Your task to perform on an android device: create a new album in the google photos Image 0: 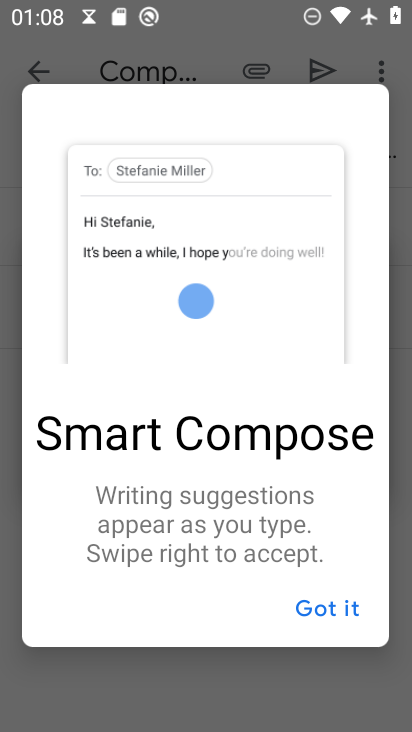
Step 0: press home button
Your task to perform on an android device: create a new album in the google photos Image 1: 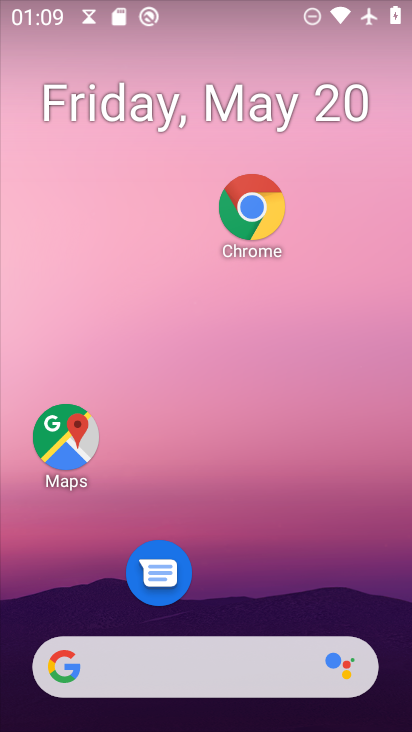
Step 1: drag from (280, 579) to (289, 0)
Your task to perform on an android device: create a new album in the google photos Image 2: 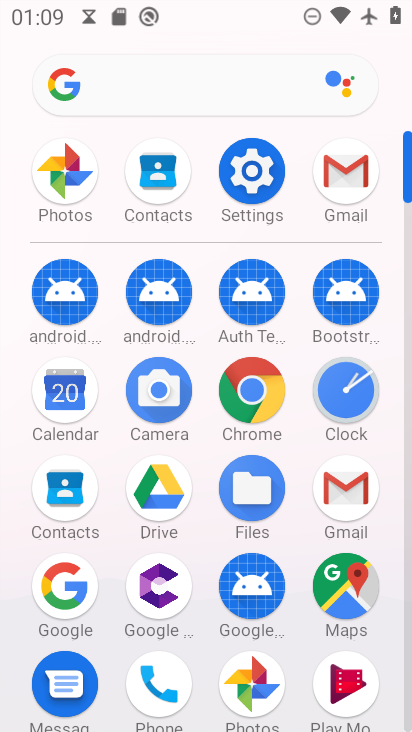
Step 2: click (74, 188)
Your task to perform on an android device: create a new album in the google photos Image 3: 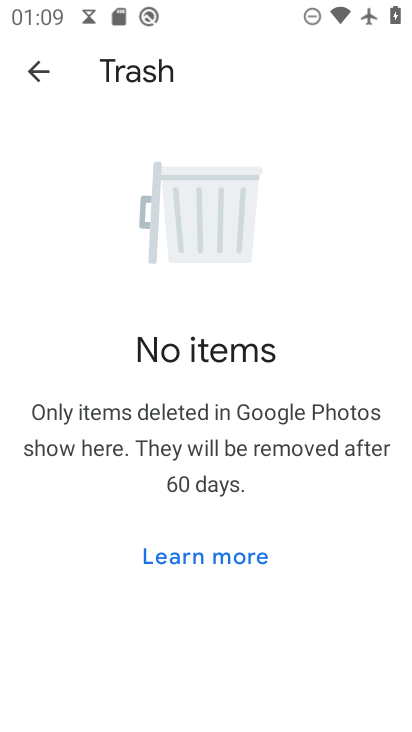
Step 3: click (42, 85)
Your task to perform on an android device: create a new album in the google photos Image 4: 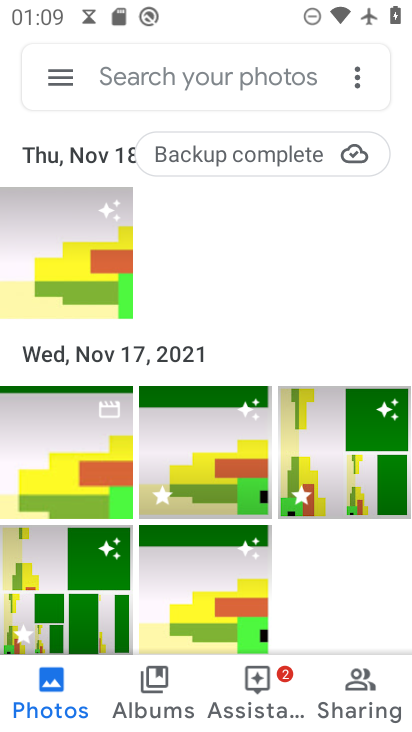
Step 4: click (171, 673)
Your task to perform on an android device: create a new album in the google photos Image 5: 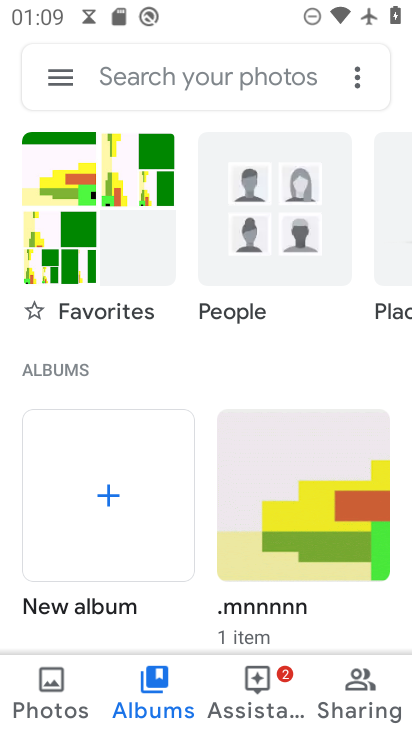
Step 5: click (89, 485)
Your task to perform on an android device: create a new album in the google photos Image 6: 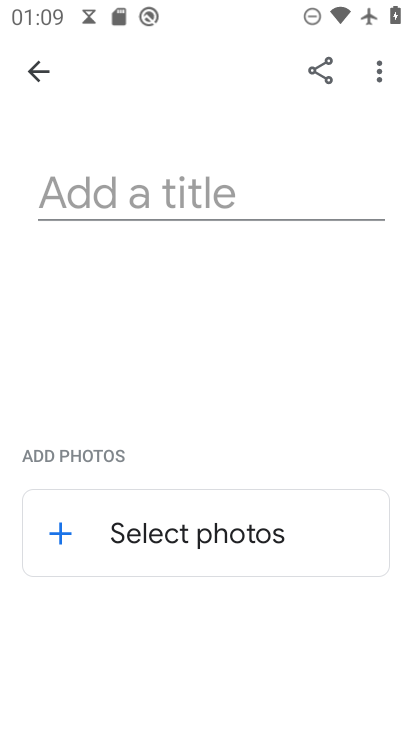
Step 6: click (116, 190)
Your task to perform on an android device: create a new album in the google photos Image 7: 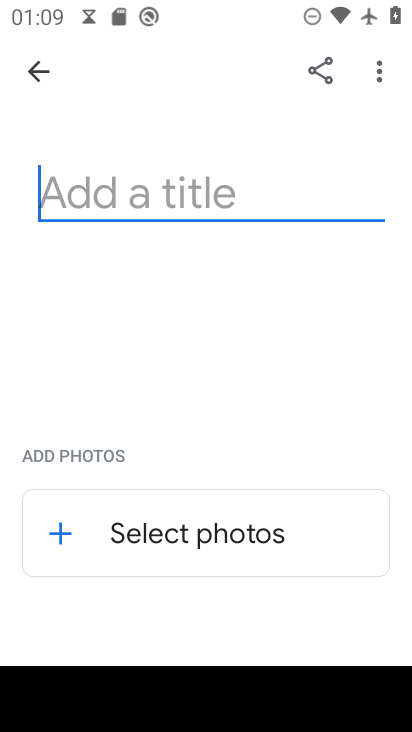
Step 7: type ",mkl."
Your task to perform on an android device: create a new album in the google photos Image 8: 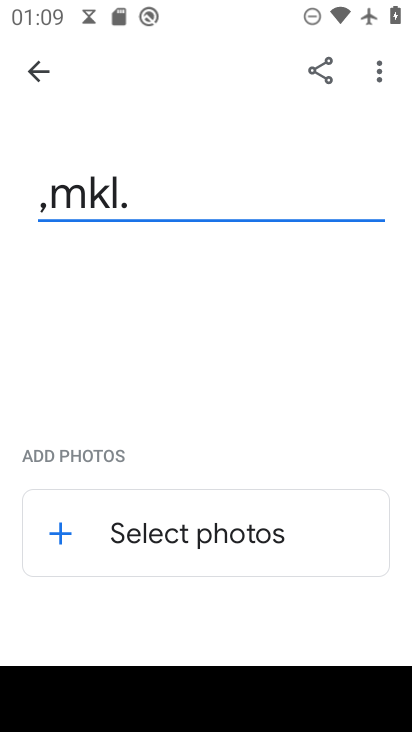
Step 8: click (66, 524)
Your task to perform on an android device: create a new album in the google photos Image 9: 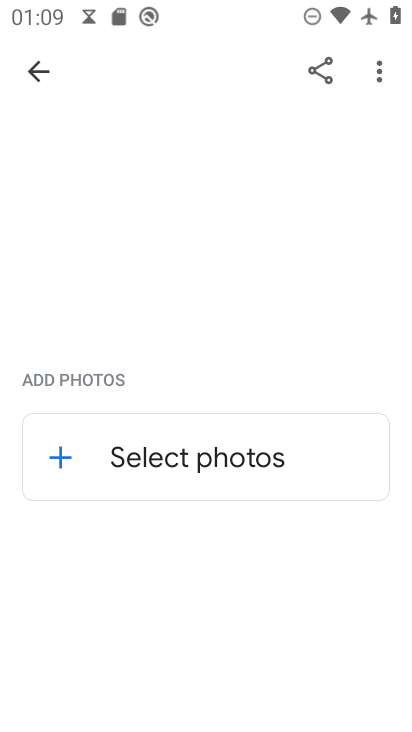
Step 9: click (129, 445)
Your task to perform on an android device: create a new album in the google photos Image 10: 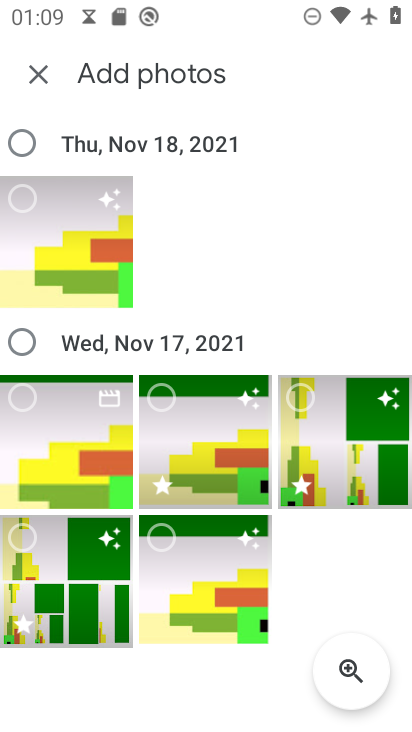
Step 10: click (164, 415)
Your task to perform on an android device: create a new album in the google photos Image 11: 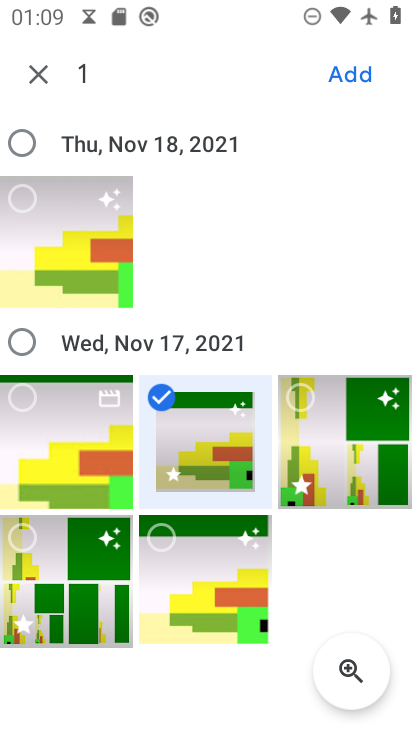
Step 11: click (363, 71)
Your task to perform on an android device: create a new album in the google photos Image 12: 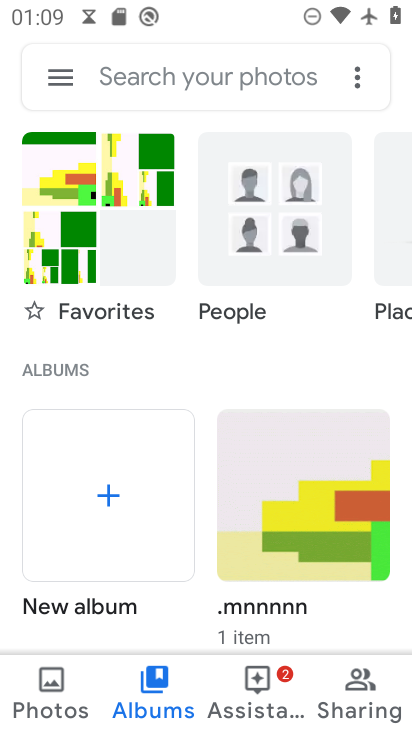
Step 12: task complete